Your task to perform on an android device: Open notification settings Image 0: 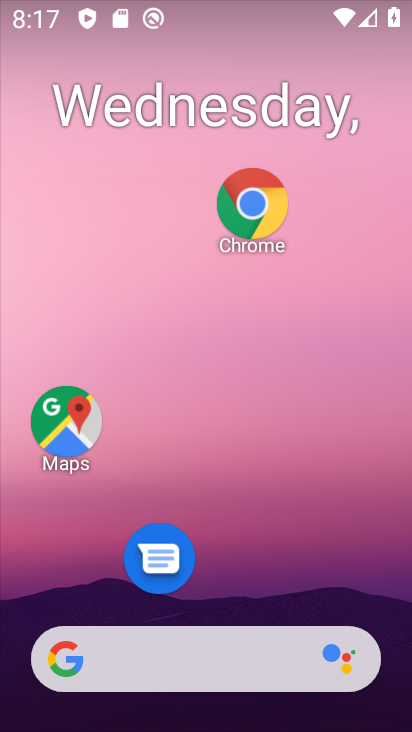
Step 0: drag from (218, 598) to (243, 59)
Your task to perform on an android device: Open notification settings Image 1: 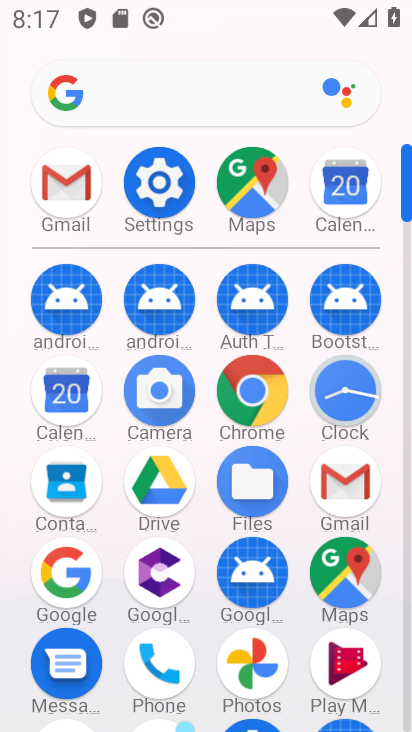
Step 1: click (158, 176)
Your task to perform on an android device: Open notification settings Image 2: 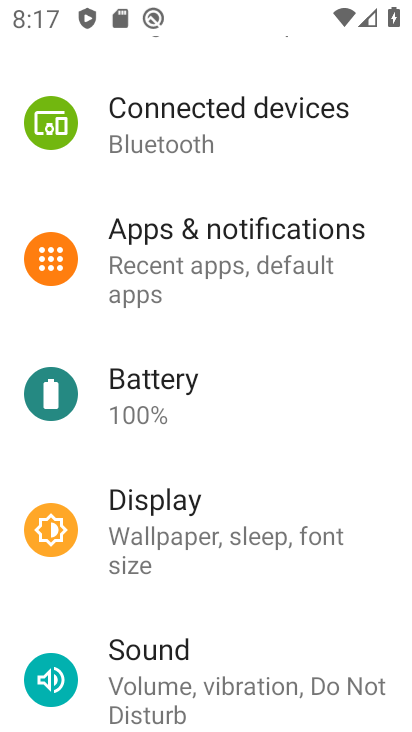
Step 2: click (236, 238)
Your task to perform on an android device: Open notification settings Image 3: 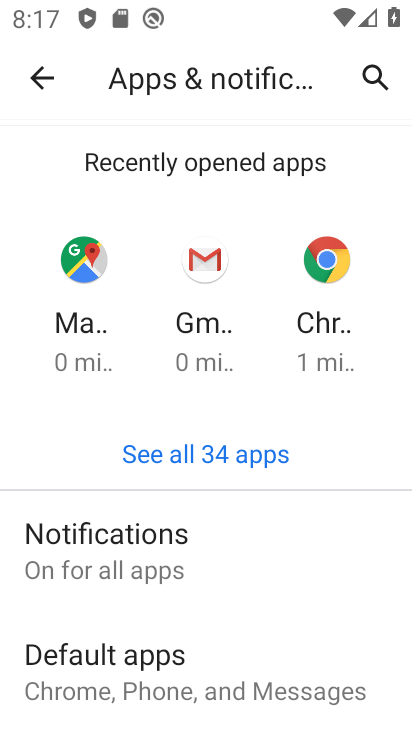
Step 3: click (199, 556)
Your task to perform on an android device: Open notification settings Image 4: 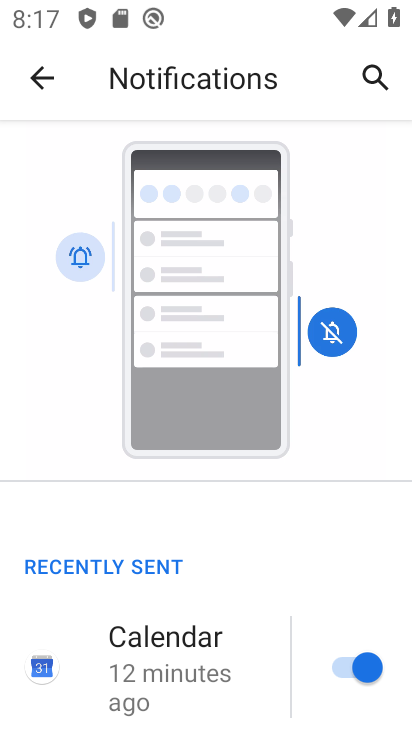
Step 4: drag from (261, 677) to (249, 122)
Your task to perform on an android device: Open notification settings Image 5: 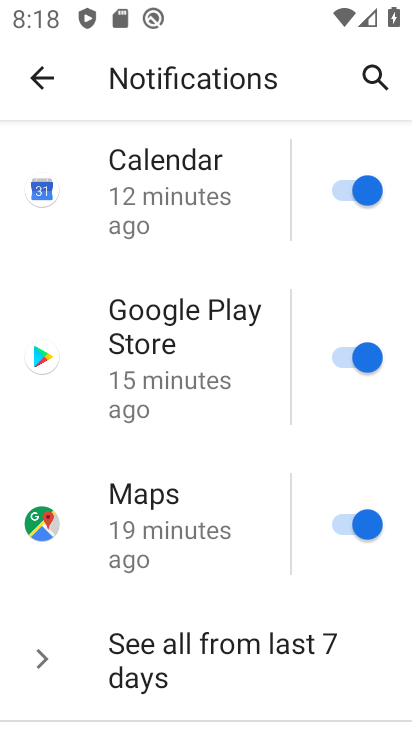
Step 5: click (349, 179)
Your task to perform on an android device: Open notification settings Image 6: 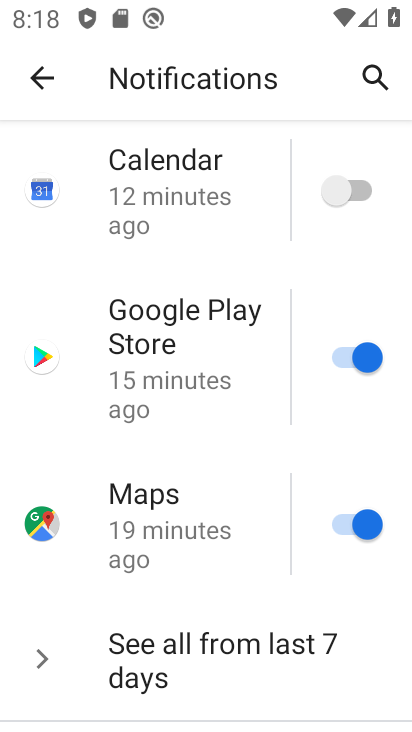
Step 6: click (343, 351)
Your task to perform on an android device: Open notification settings Image 7: 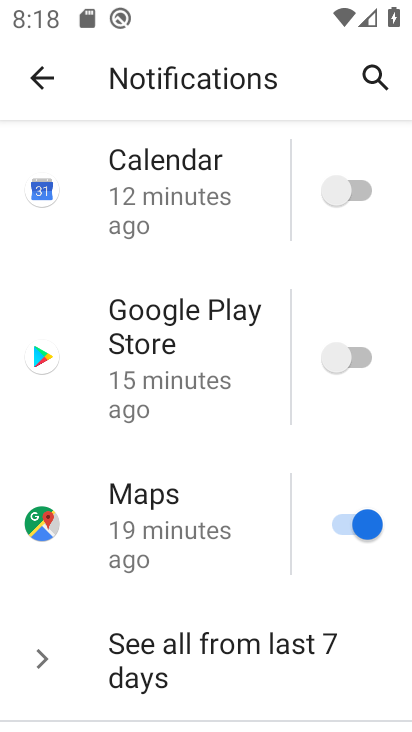
Step 7: click (349, 535)
Your task to perform on an android device: Open notification settings Image 8: 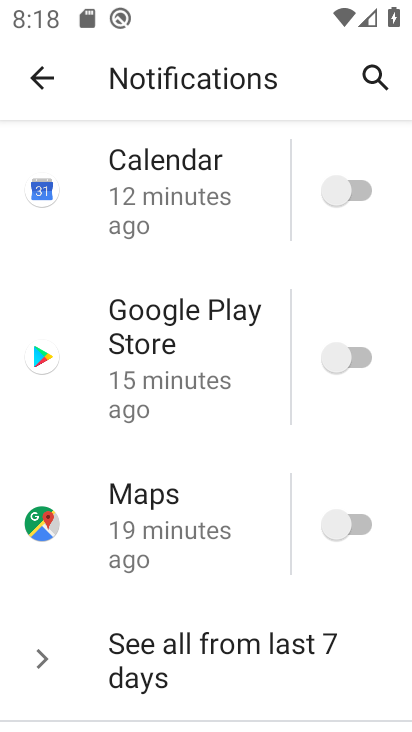
Step 8: drag from (258, 668) to (256, 142)
Your task to perform on an android device: Open notification settings Image 9: 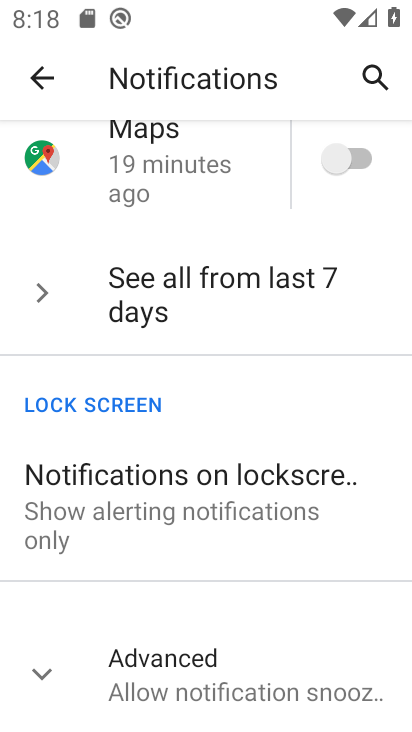
Step 9: click (208, 512)
Your task to perform on an android device: Open notification settings Image 10: 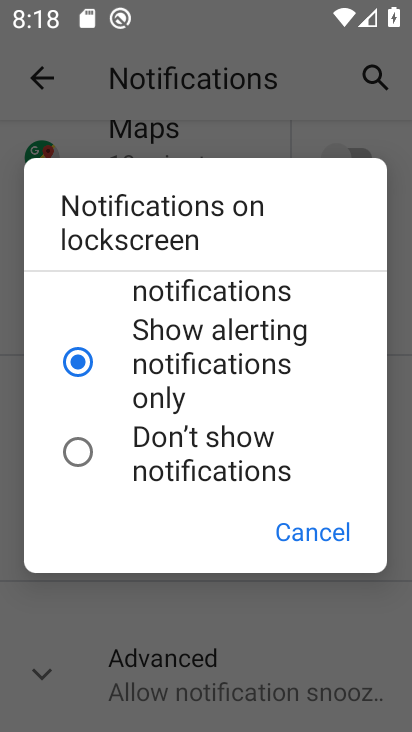
Step 10: drag from (112, 323) to (133, 531)
Your task to perform on an android device: Open notification settings Image 11: 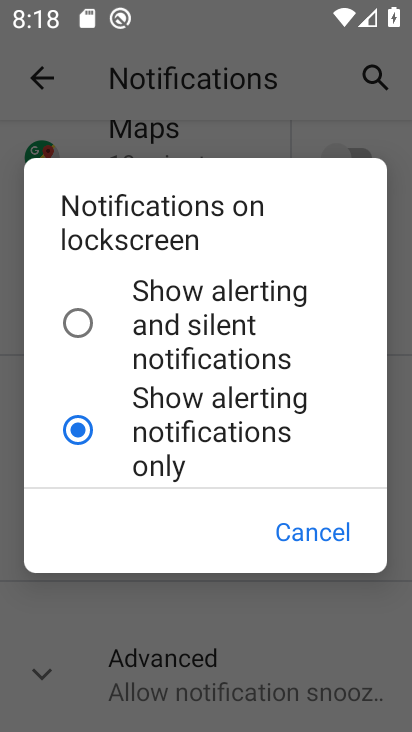
Step 11: click (78, 327)
Your task to perform on an android device: Open notification settings Image 12: 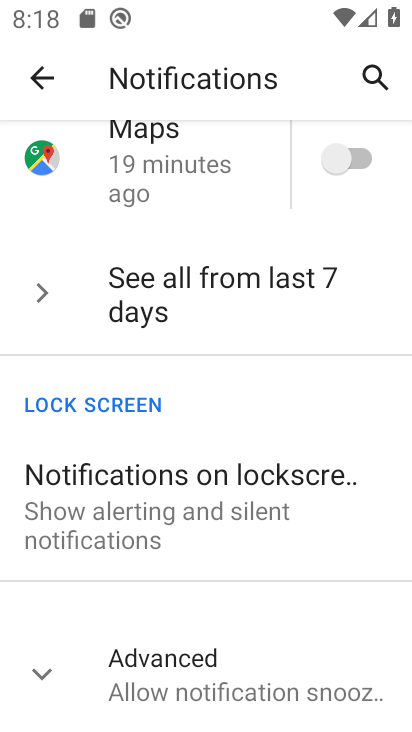
Step 12: task complete